Your task to perform on an android device: check android version Image 0: 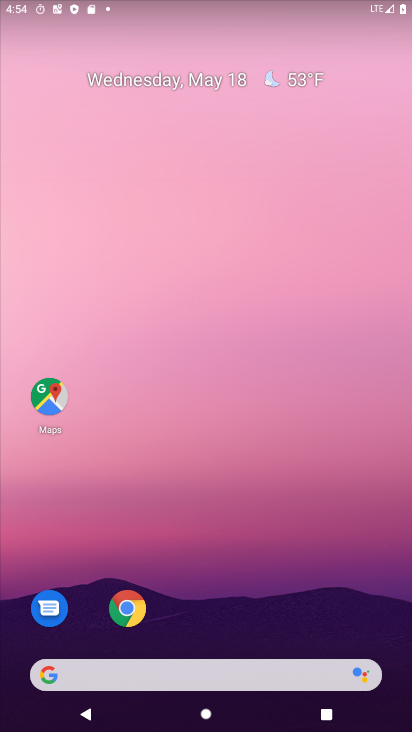
Step 0: drag from (206, 639) to (167, 45)
Your task to perform on an android device: check android version Image 1: 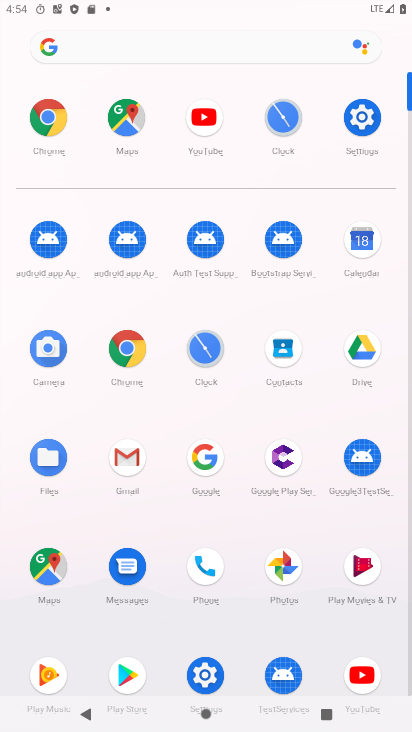
Step 1: click (359, 116)
Your task to perform on an android device: check android version Image 2: 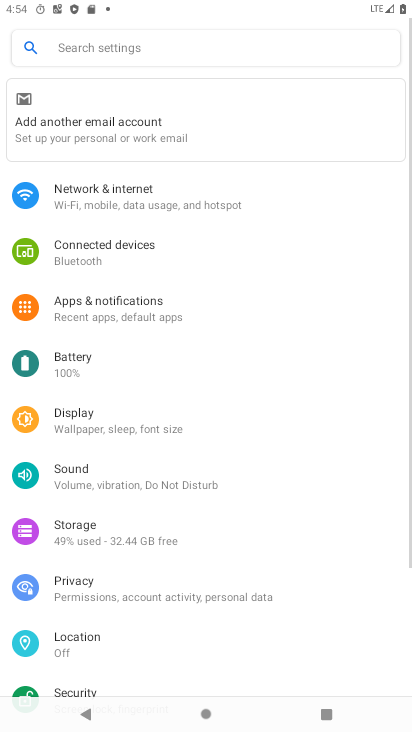
Step 2: drag from (169, 660) to (151, 133)
Your task to perform on an android device: check android version Image 3: 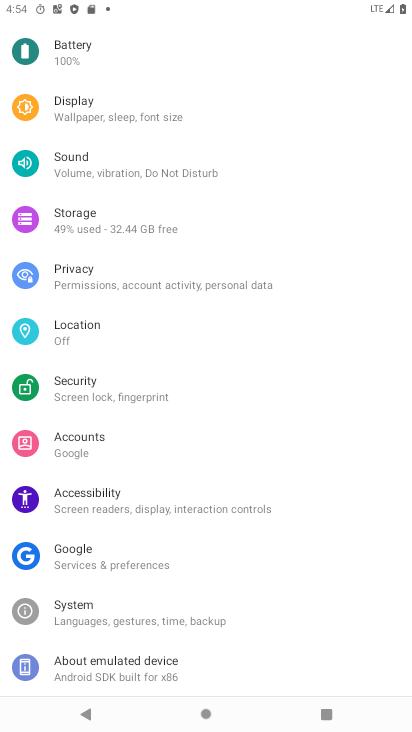
Step 3: click (176, 678)
Your task to perform on an android device: check android version Image 4: 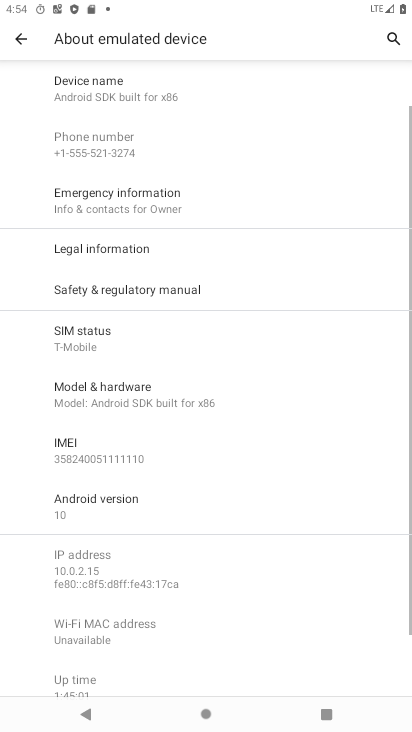
Step 4: click (136, 514)
Your task to perform on an android device: check android version Image 5: 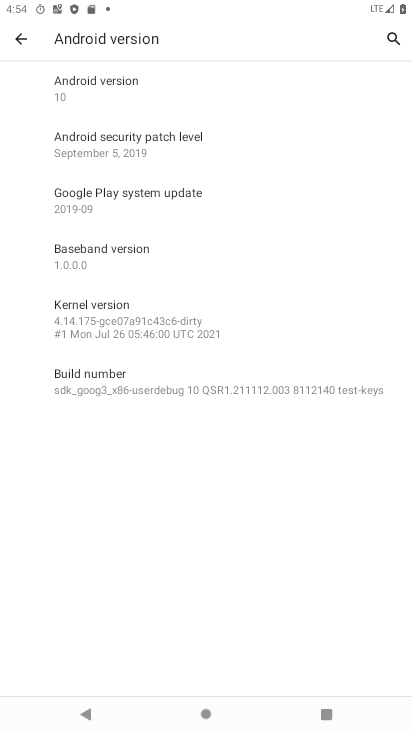
Step 5: task complete